Your task to perform on an android device: clear history in the chrome app Image 0: 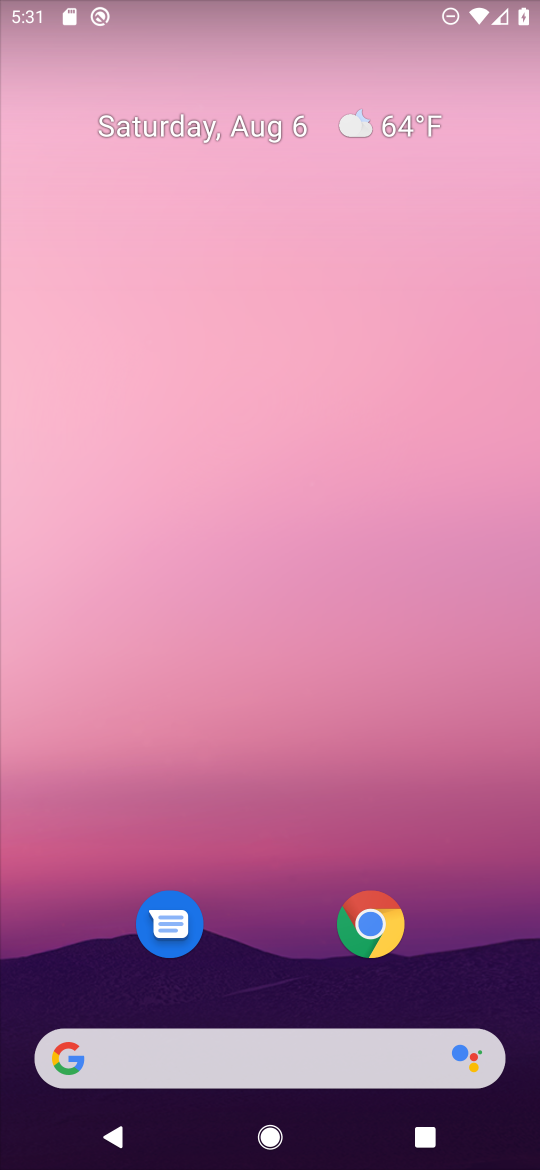
Step 0: press home button
Your task to perform on an android device: clear history in the chrome app Image 1: 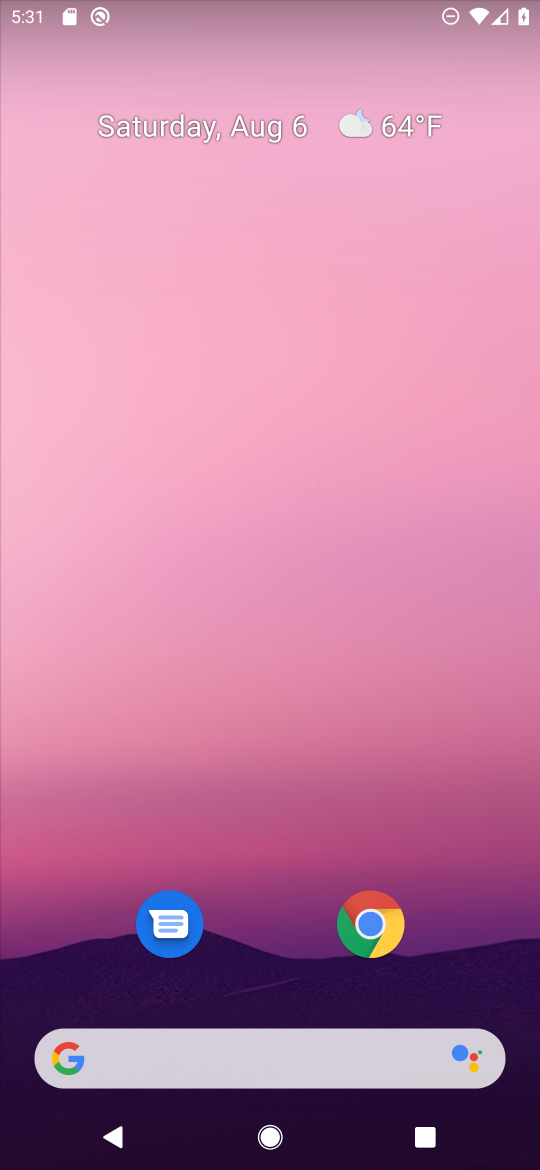
Step 1: click (366, 930)
Your task to perform on an android device: clear history in the chrome app Image 2: 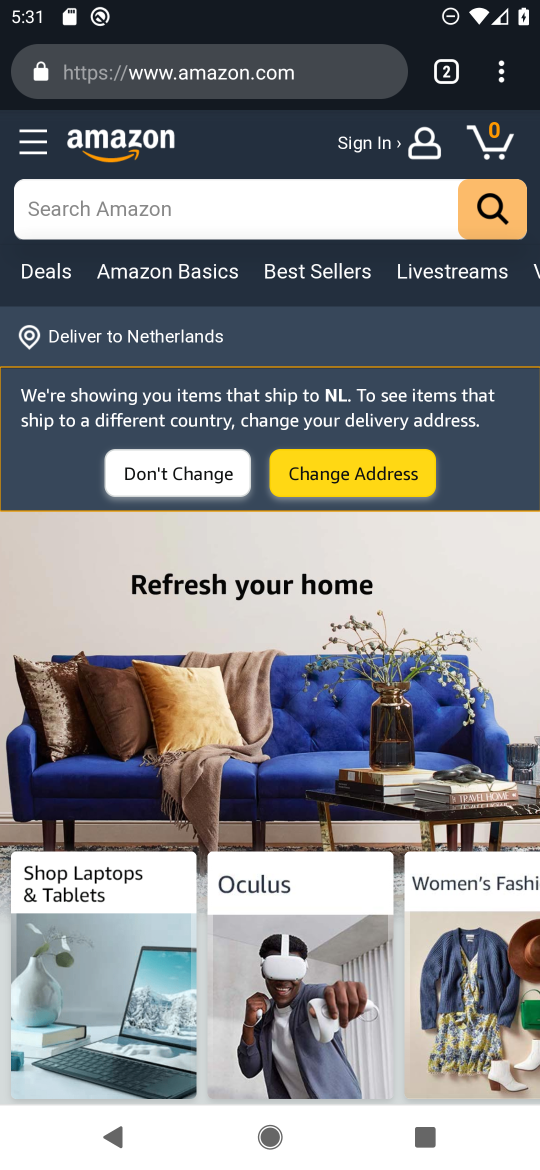
Step 2: click (510, 72)
Your task to perform on an android device: clear history in the chrome app Image 3: 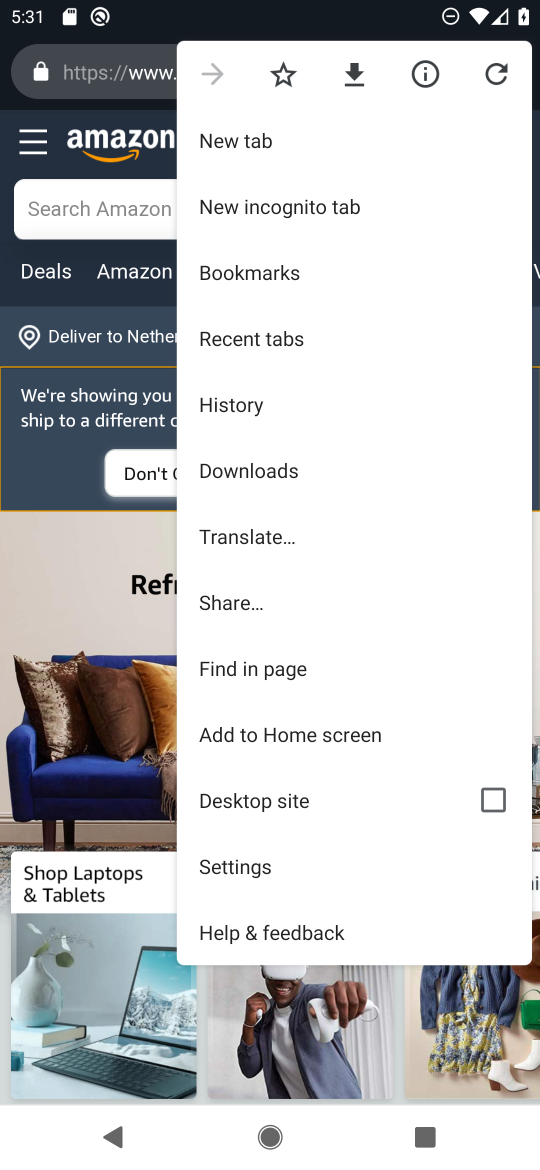
Step 3: click (225, 405)
Your task to perform on an android device: clear history in the chrome app Image 4: 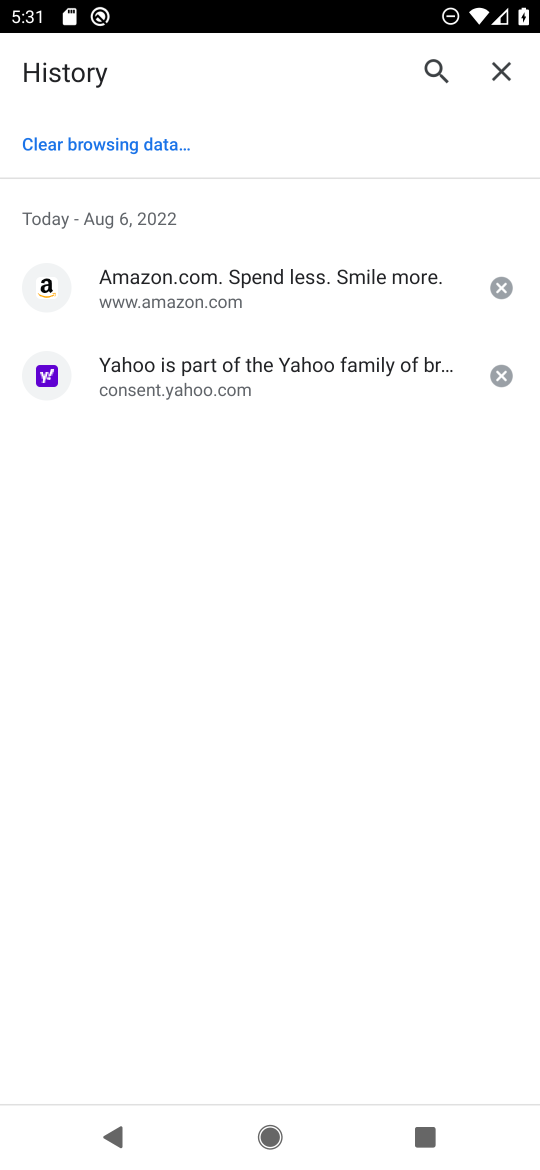
Step 4: click (93, 145)
Your task to perform on an android device: clear history in the chrome app Image 5: 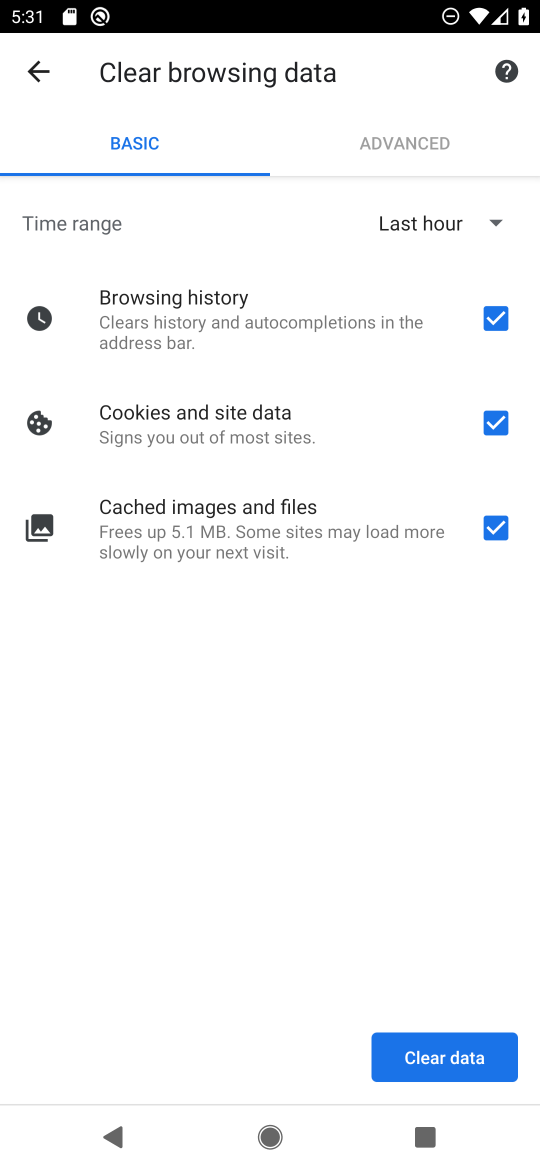
Step 5: click (459, 1051)
Your task to perform on an android device: clear history in the chrome app Image 6: 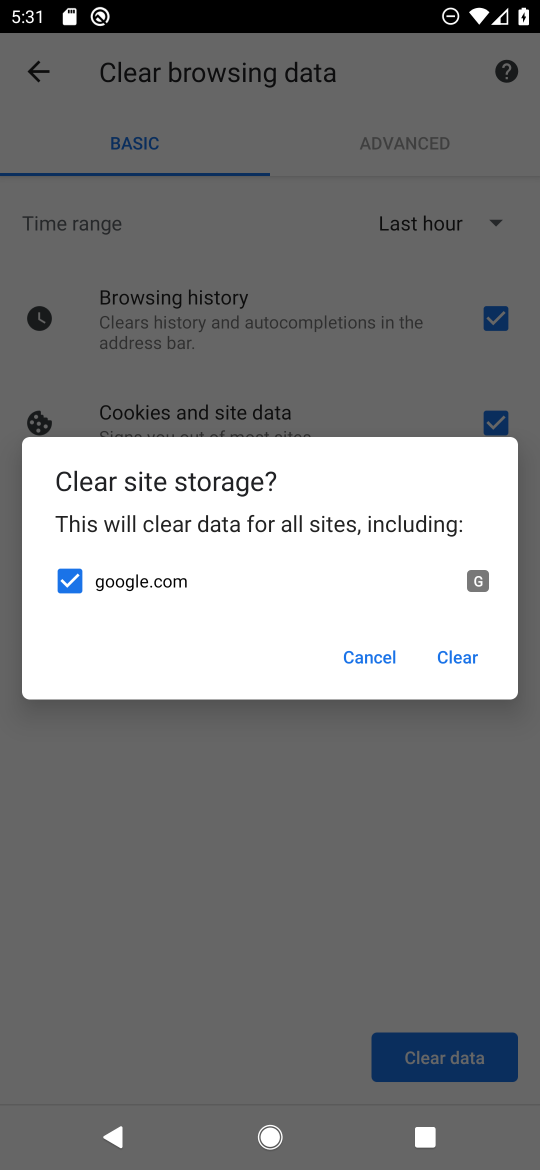
Step 6: click (462, 650)
Your task to perform on an android device: clear history in the chrome app Image 7: 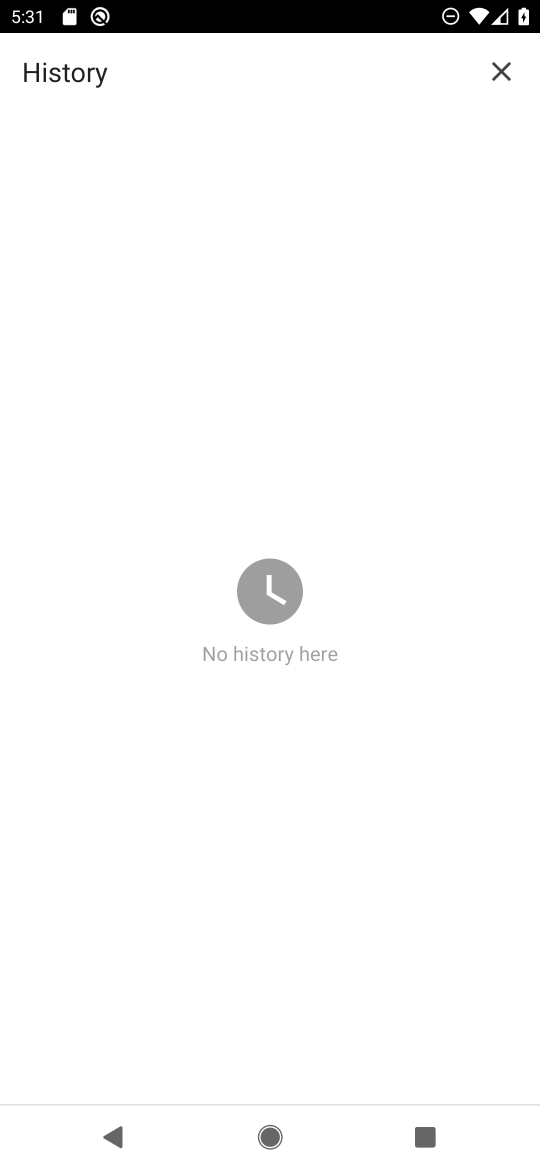
Step 7: task complete